Your task to perform on an android device: allow cookies in the chrome app Image 0: 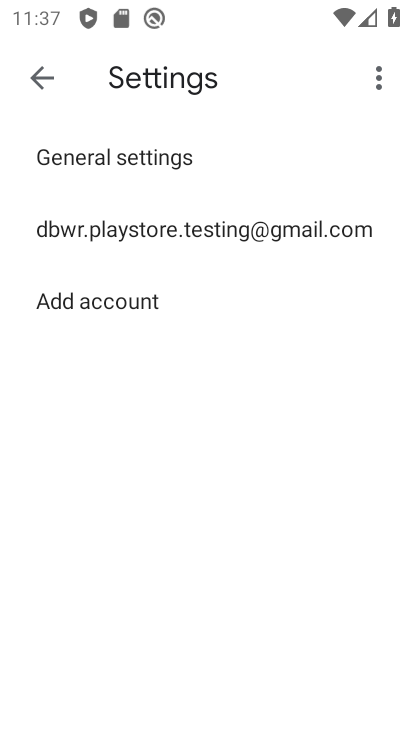
Step 0: press home button
Your task to perform on an android device: allow cookies in the chrome app Image 1: 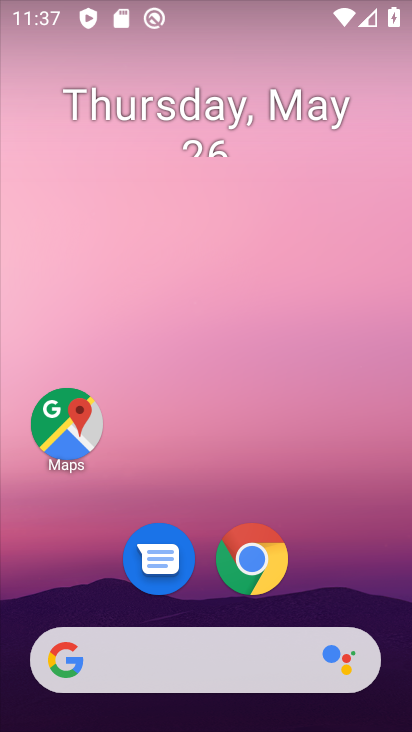
Step 1: click (269, 552)
Your task to perform on an android device: allow cookies in the chrome app Image 2: 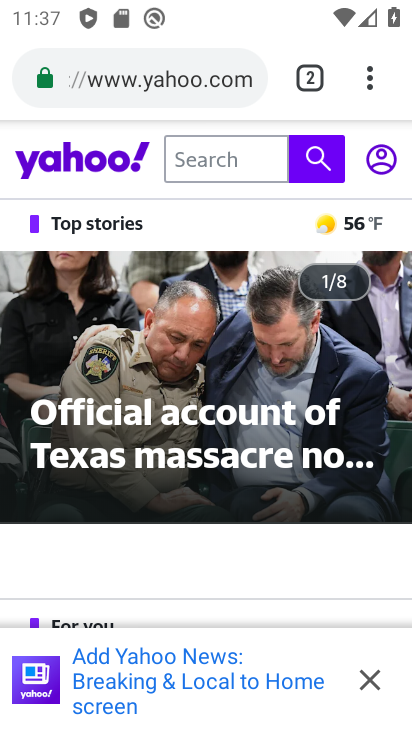
Step 2: click (367, 82)
Your task to perform on an android device: allow cookies in the chrome app Image 3: 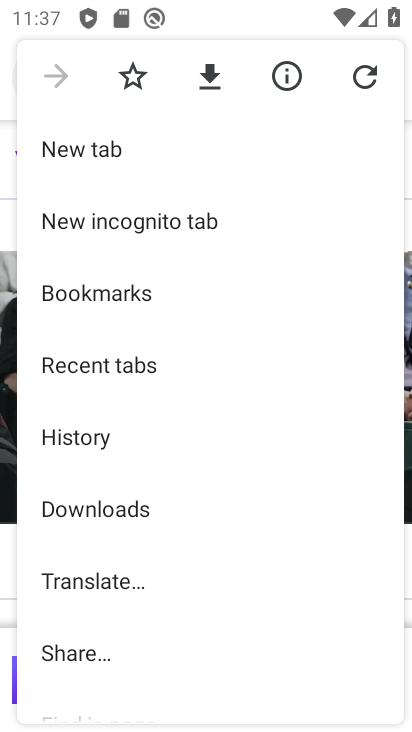
Step 3: drag from (155, 698) to (202, 163)
Your task to perform on an android device: allow cookies in the chrome app Image 4: 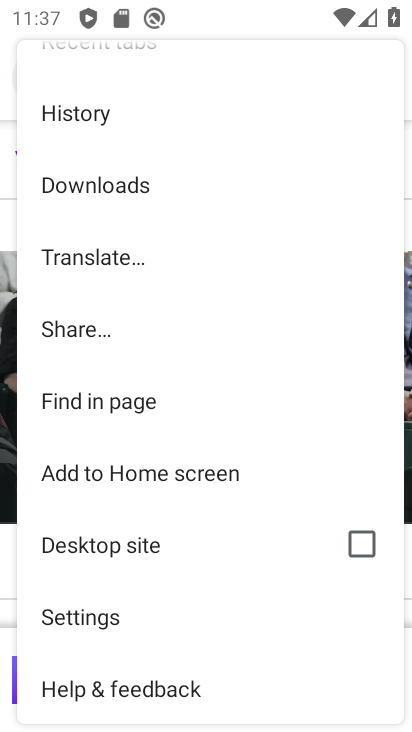
Step 4: click (96, 620)
Your task to perform on an android device: allow cookies in the chrome app Image 5: 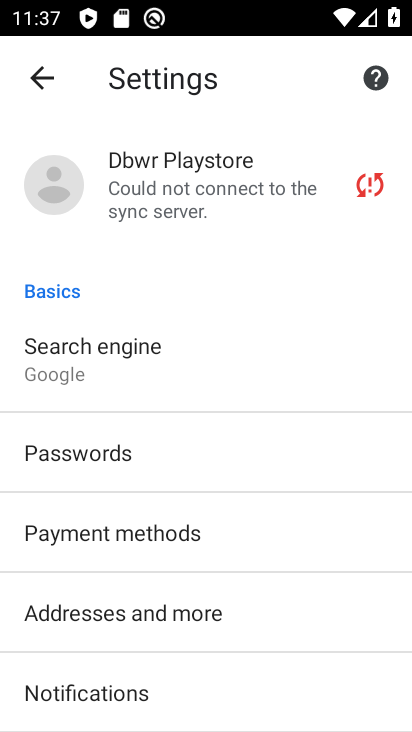
Step 5: drag from (184, 693) to (168, 209)
Your task to perform on an android device: allow cookies in the chrome app Image 6: 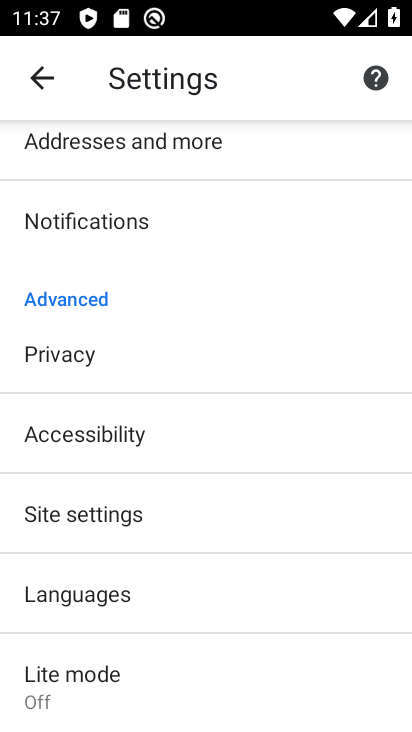
Step 6: drag from (248, 669) to (202, 240)
Your task to perform on an android device: allow cookies in the chrome app Image 7: 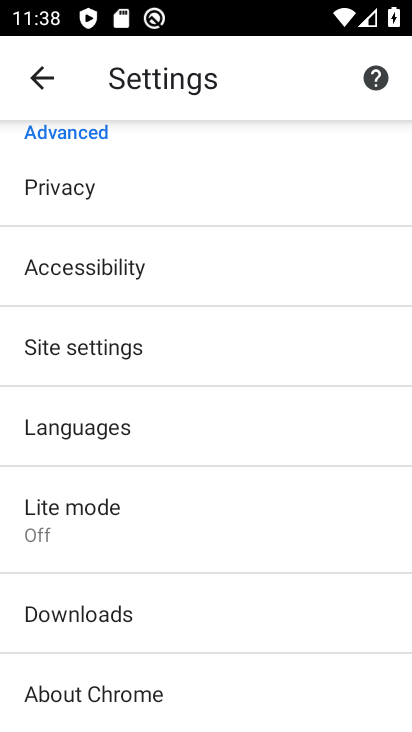
Step 7: click (143, 350)
Your task to perform on an android device: allow cookies in the chrome app Image 8: 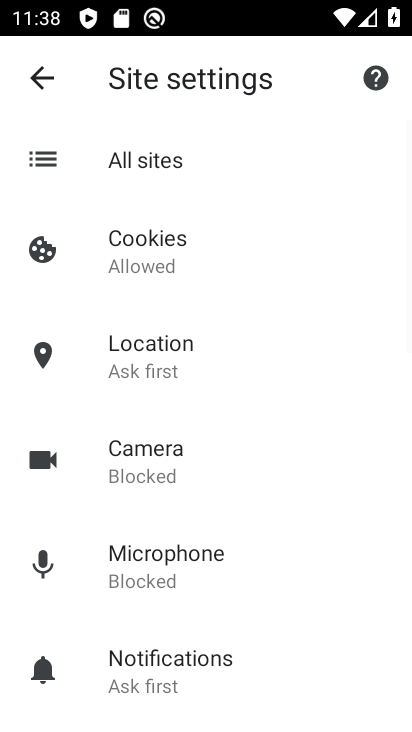
Step 8: click (191, 246)
Your task to perform on an android device: allow cookies in the chrome app Image 9: 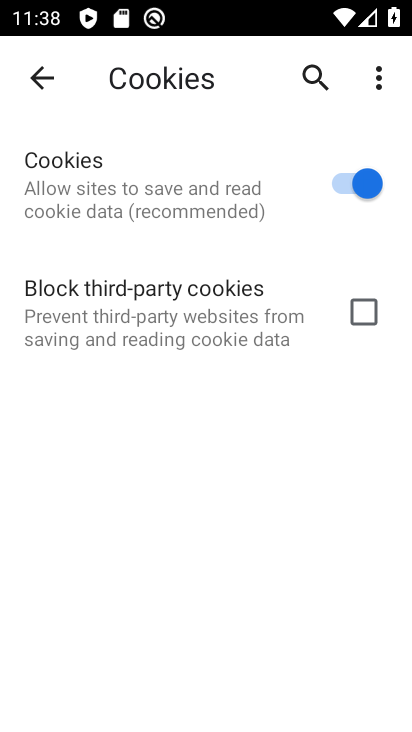
Step 9: task complete